Your task to perform on an android device: Clear the shopping cart on costco. Search for dell alienware on costco, select the first entry, add it to the cart, then select checkout. Image 0: 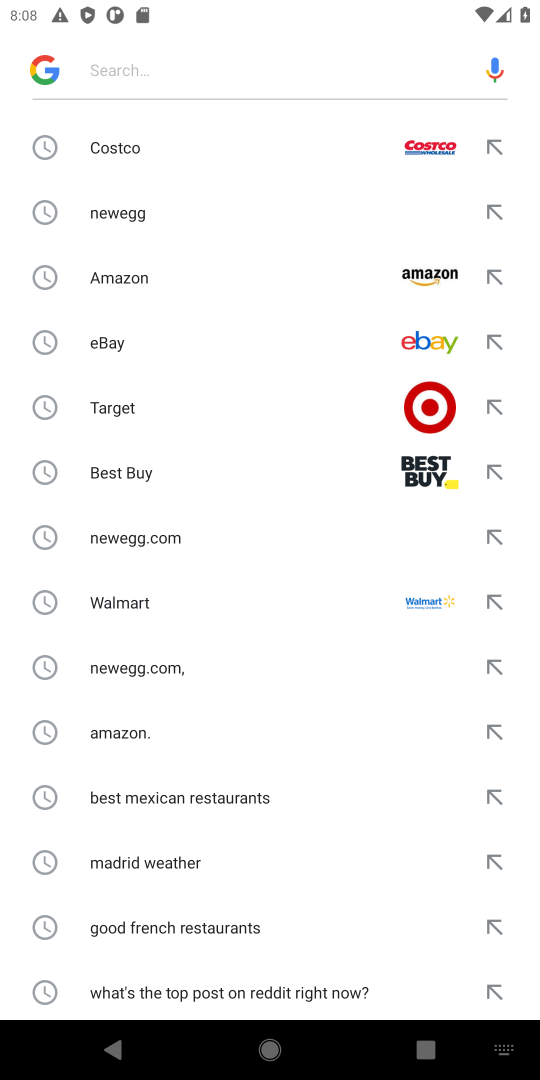
Step 0: click (150, 148)
Your task to perform on an android device: Clear the shopping cart on costco. Search for dell alienware on costco, select the first entry, add it to the cart, then select checkout. Image 1: 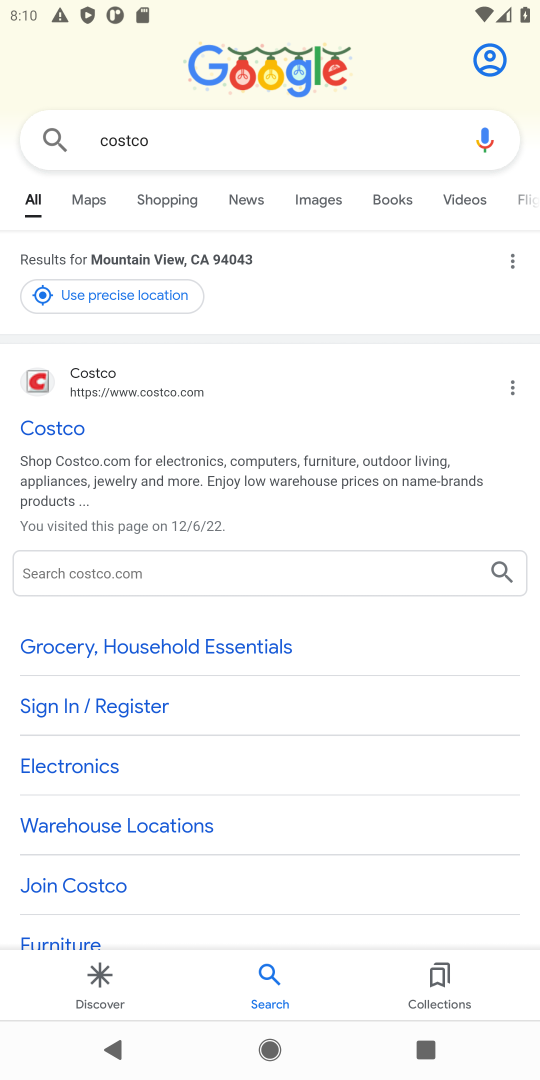
Step 1: click (59, 424)
Your task to perform on an android device: Clear the shopping cart on costco. Search for dell alienware on costco, select the first entry, add it to the cart, then select checkout. Image 2: 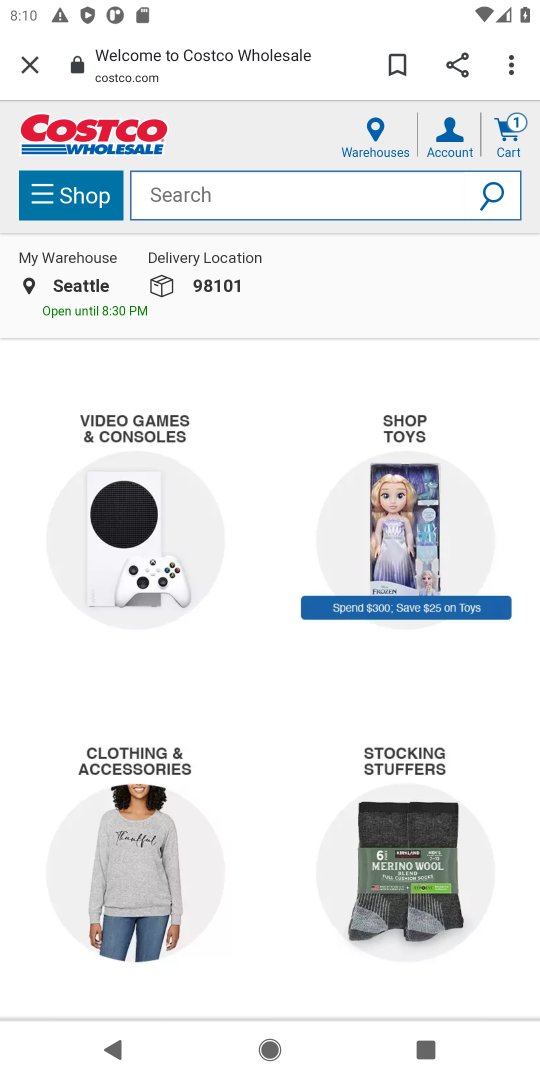
Step 2: click (514, 132)
Your task to perform on an android device: Clear the shopping cart on costco. Search for dell alienware on costco, select the first entry, add it to the cart, then select checkout. Image 3: 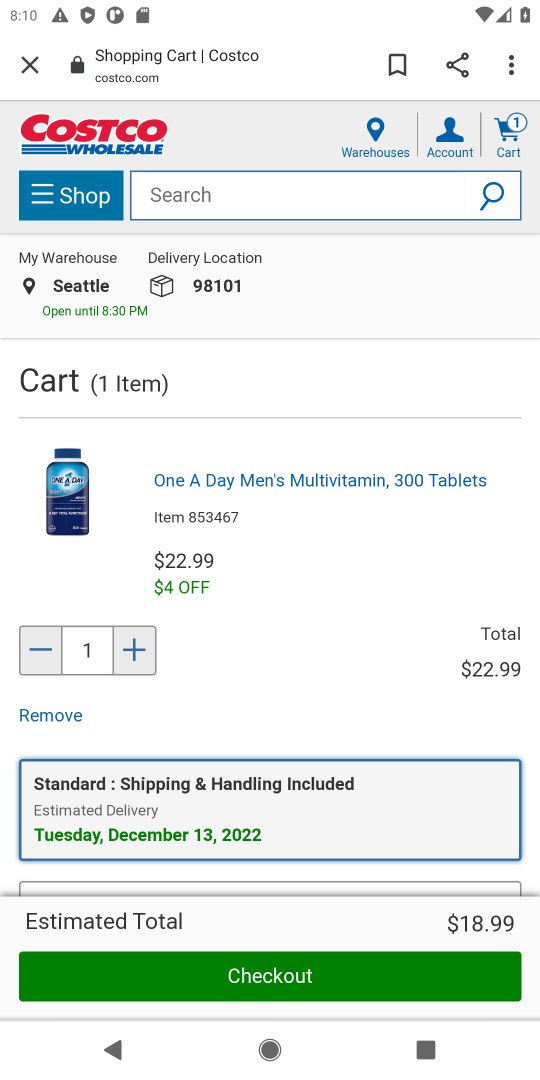
Step 3: click (39, 712)
Your task to perform on an android device: Clear the shopping cart on costco. Search for dell alienware on costco, select the first entry, add it to the cart, then select checkout. Image 4: 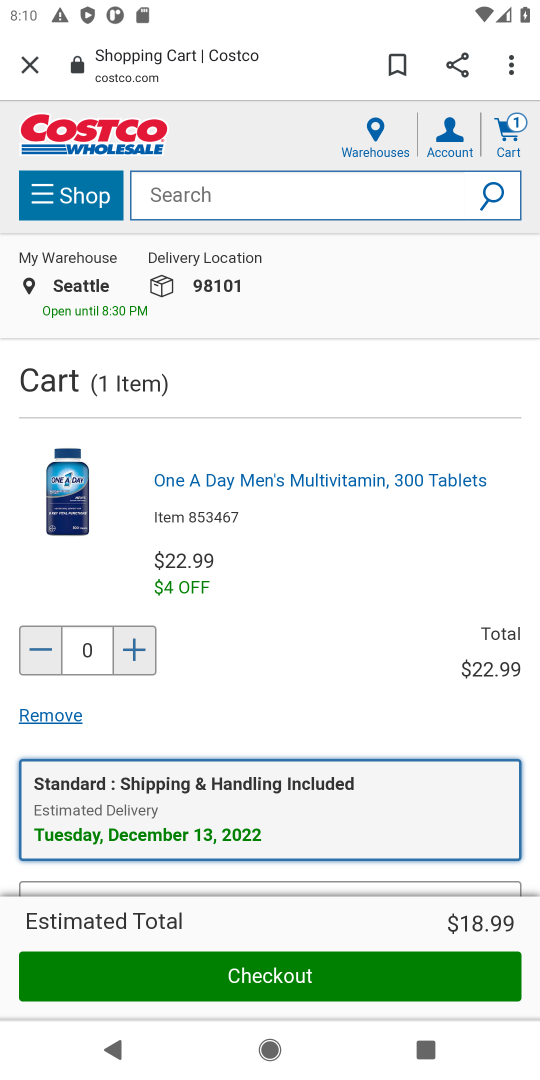
Step 4: click (39, 712)
Your task to perform on an android device: Clear the shopping cart on costco. Search for dell alienware on costco, select the first entry, add it to the cart, then select checkout. Image 5: 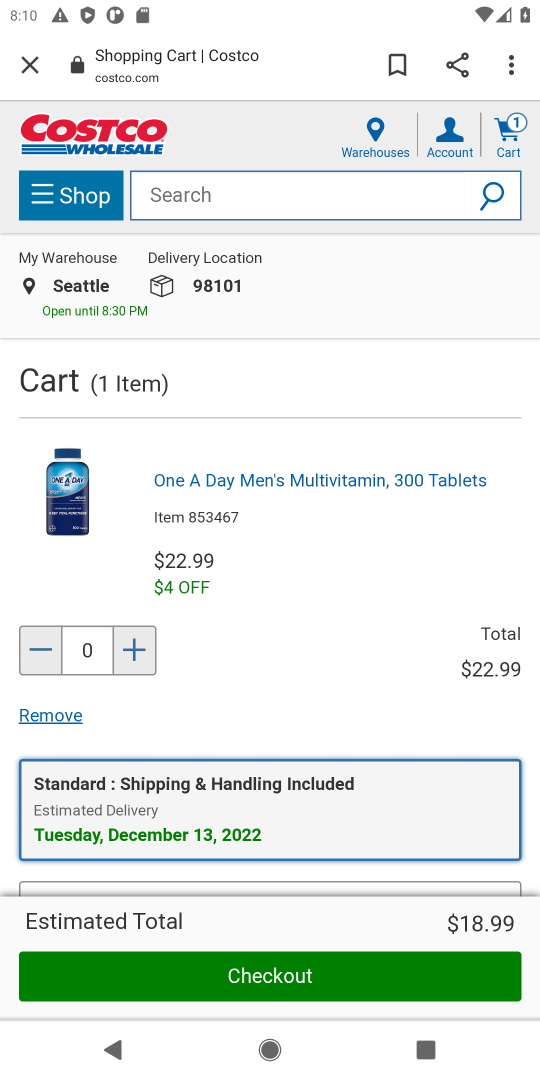
Step 5: click (68, 717)
Your task to perform on an android device: Clear the shopping cart on costco. Search for dell alienware on costco, select the first entry, add it to the cart, then select checkout. Image 6: 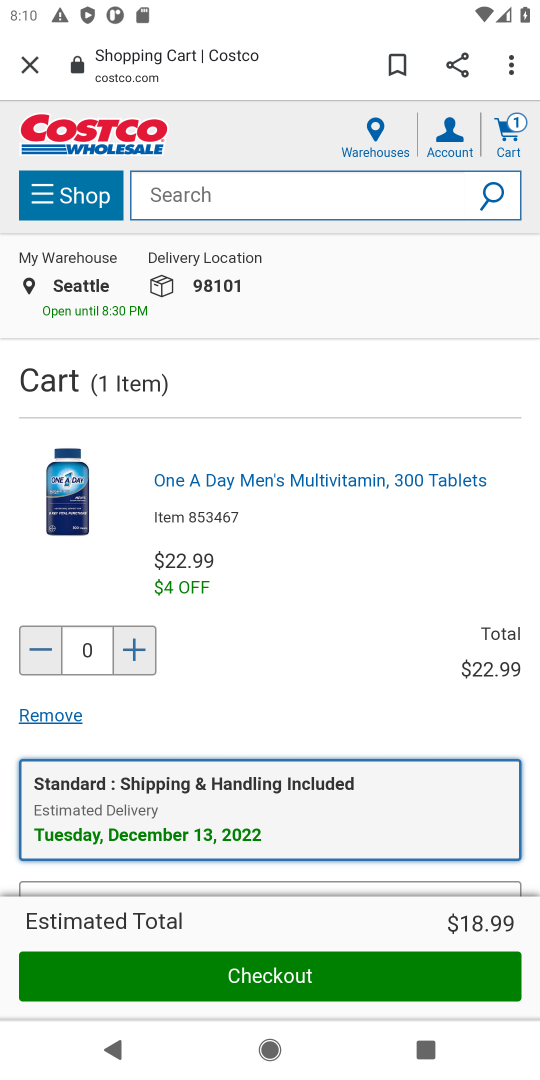
Step 6: click (63, 722)
Your task to perform on an android device: Clear the shopping cart on costco. Search for dell alienware on costco, select the first entry, add it to the cart, then select checkout. Image 7: 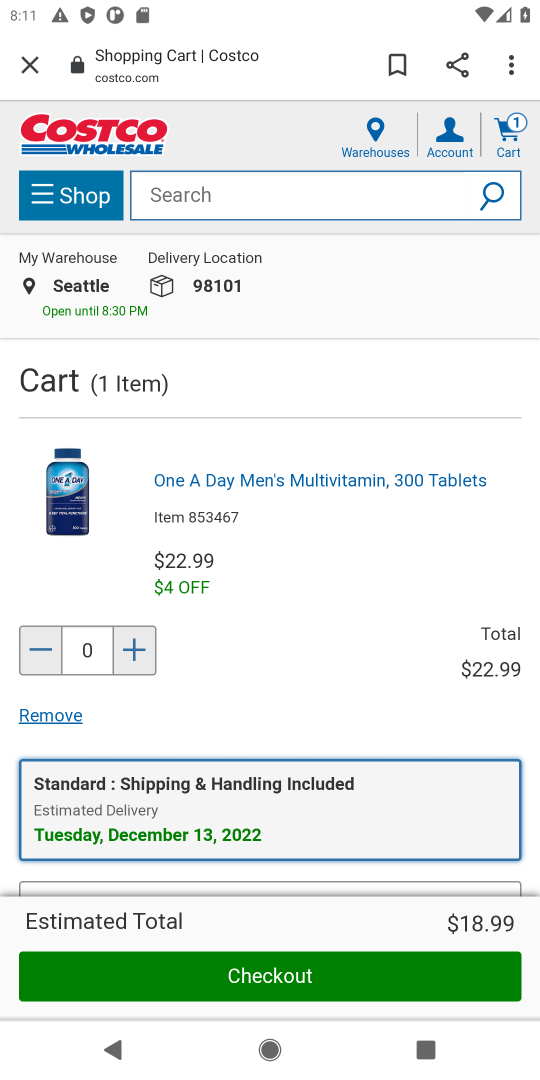
Step 7: click (61, 722)
Your task to perform on an android device: Clear the shopping cart on costco. Search for dell alienware on costco, select the first entry, add it to the cart, then select checkout. Image 8: 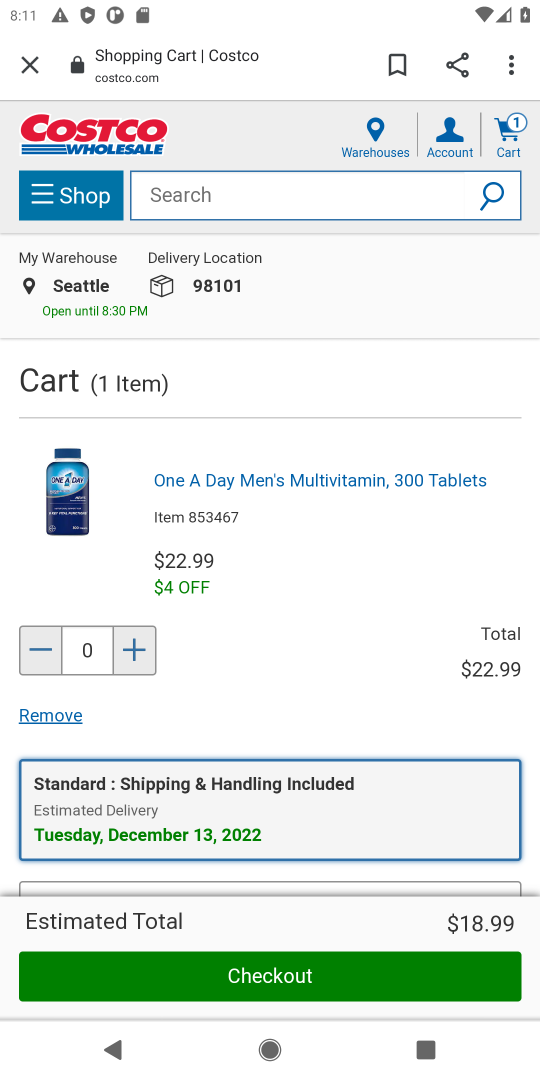
Step 8: click (61, 722)
Your task to perform on an android device: Clear the shopping cart on costco. Search for dell alienware on costco, select the first entry, add it to the cart, then select checkout. Image 9: 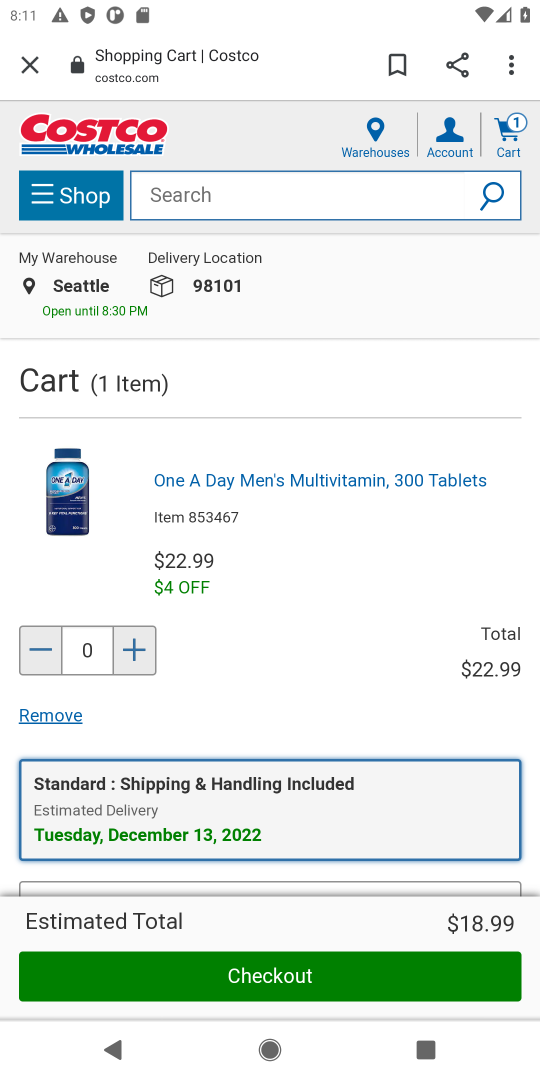
Step 9: click (63, 723)
Your task to perform on an android device: Clear the shopping cart on costco. Search for dell alienware on costco, select the first entry, add it to the cart, then select checkout. Image 10: 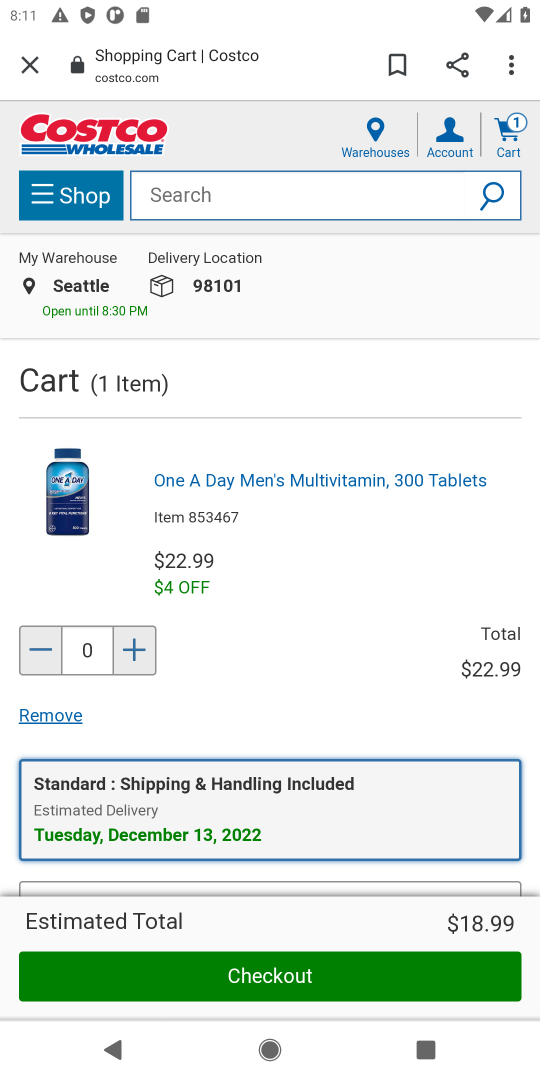
Step 10: task complete